Your task to perform on an android device: Open Google Image 0: 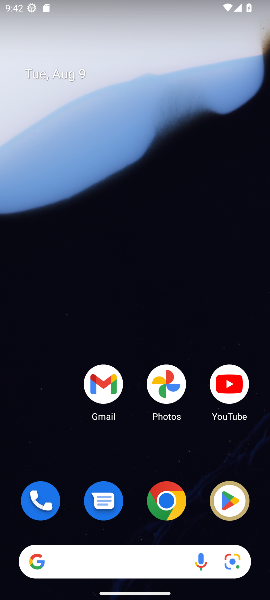
Step 0: click (143, 551)
Your task to perform on an android device: Open Google Image 1: 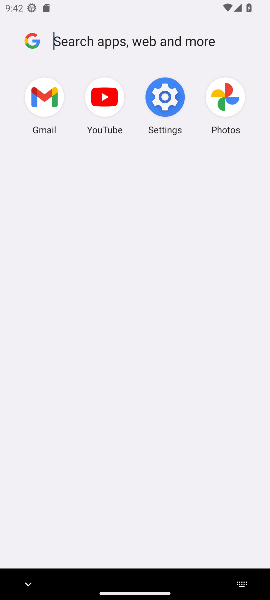
Step 1: task complete